Your task to perform on an android device: turn on data saver in the chrome app Image 0: 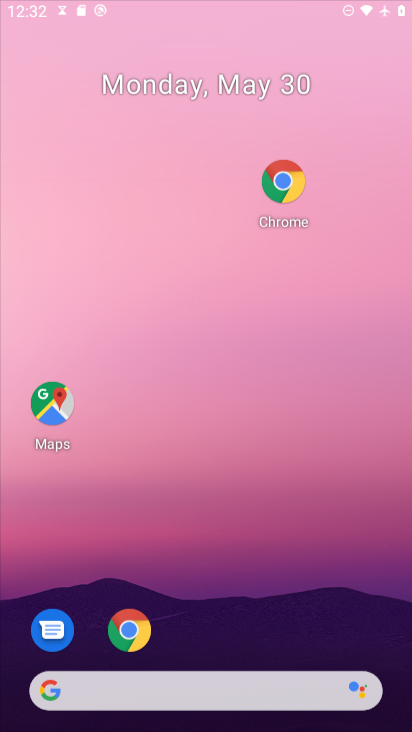
Step 0: drag from (292, 689) to (264, 295)
Your task to perform on an android device: turn on data saver in the chrome app Image 1: 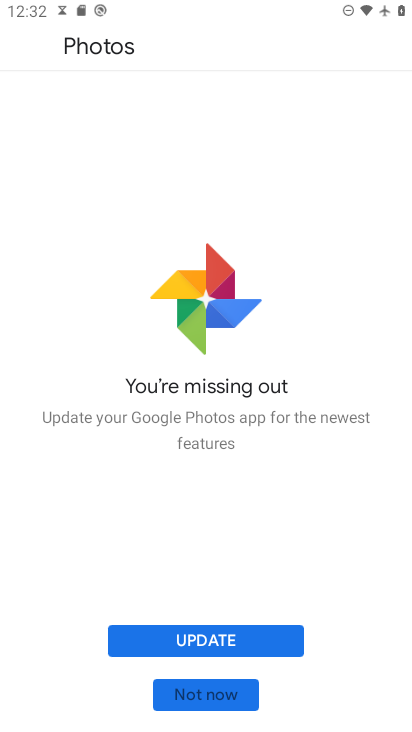
Step 1: click (211, 682)
Your task to perform on an android device: turn on data saver in the chrome app Image 2: 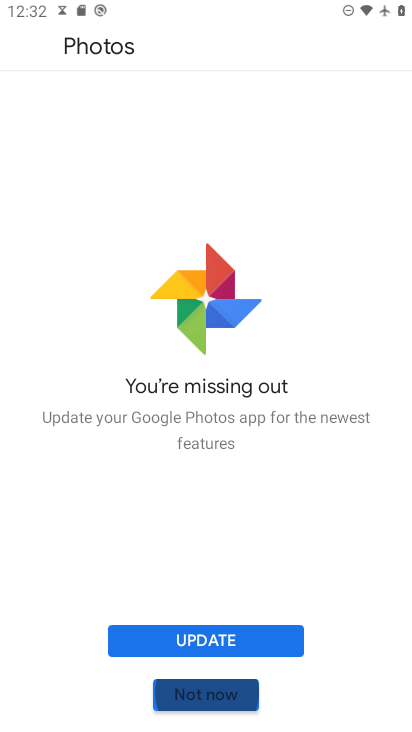
Step 2: click (205, 698)
Your task to perform on an android device: turn on data saver in the chrome app Image 3: 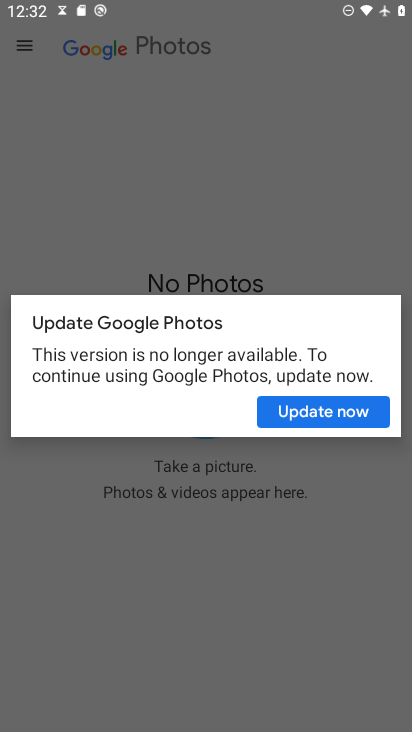
Step 3: press back button
Your task to perform on an android device: turn on data saver in the chrome app Image 4: 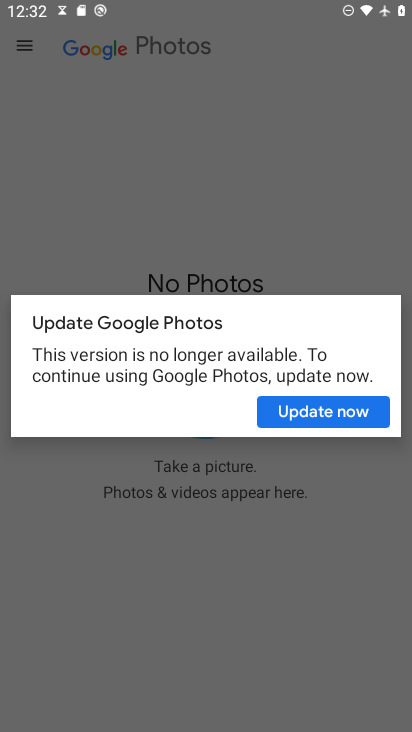
Step 4: press back button
Your task to perform on an android device: turn on data saver in the chrome app Image 5: 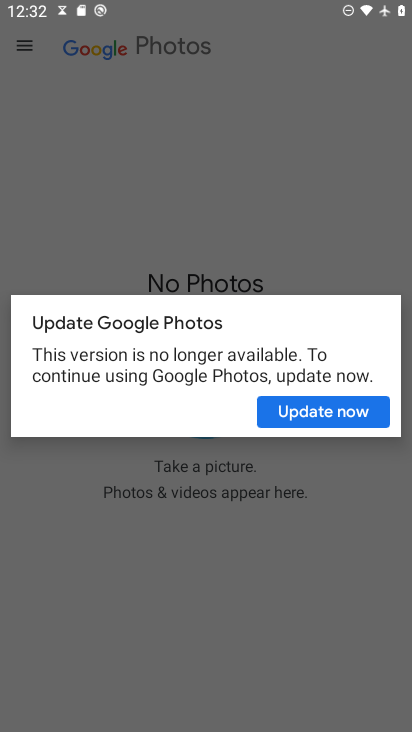
Step 5: press back button
Your task to perform on an android device: turn on data saver in the chrome app Image 6: 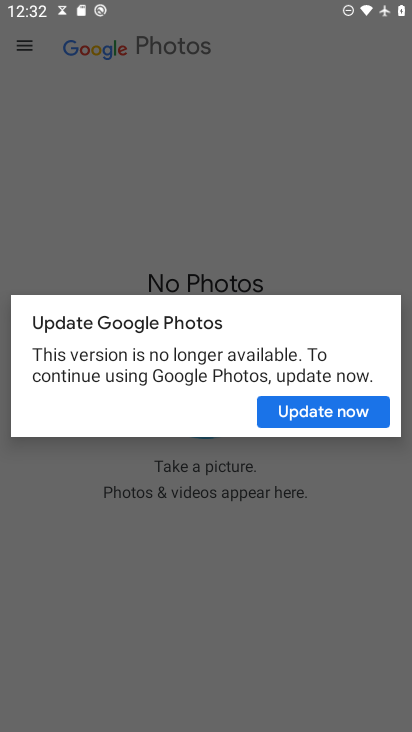
Step 6: press home button
Your task to perform on an android device: turn on data saver in the chrome app Image 7: 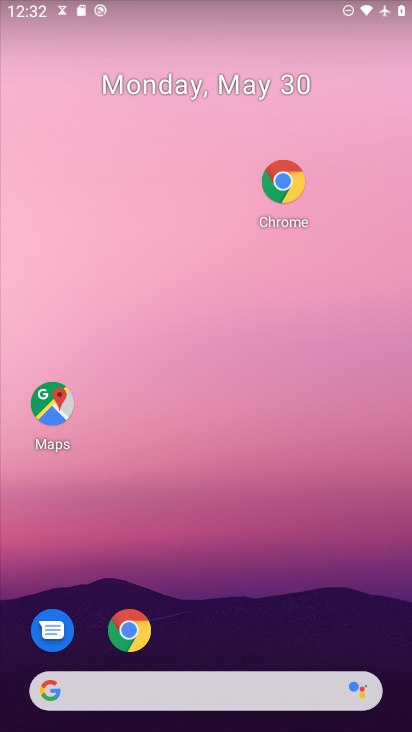
Step 7: drag from (259, 718) to (110, 108)
Your task to perform on an android device: turn on data saver in the chrome app Image 8: 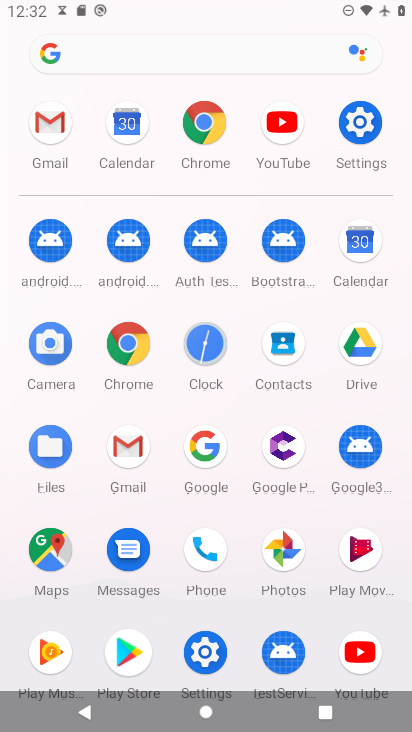
Step 8: click (193, 122)
Your task to perform on an android device: turn on data saver in the chrome app Image 9: 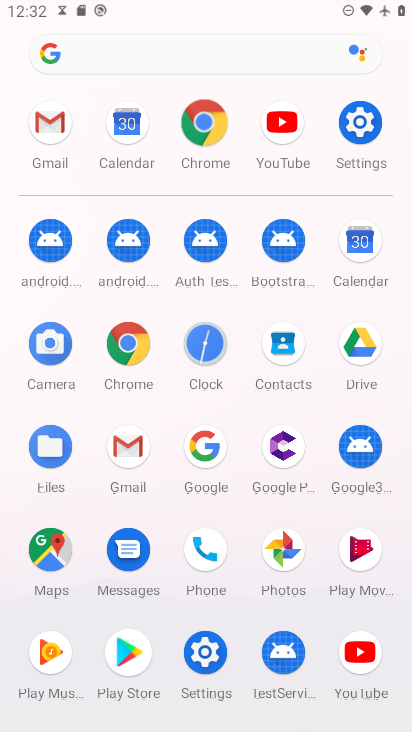
Step 9: click (202, 117)
Your task to perform on an android device: turn on data saver in the chrome app Image 10: 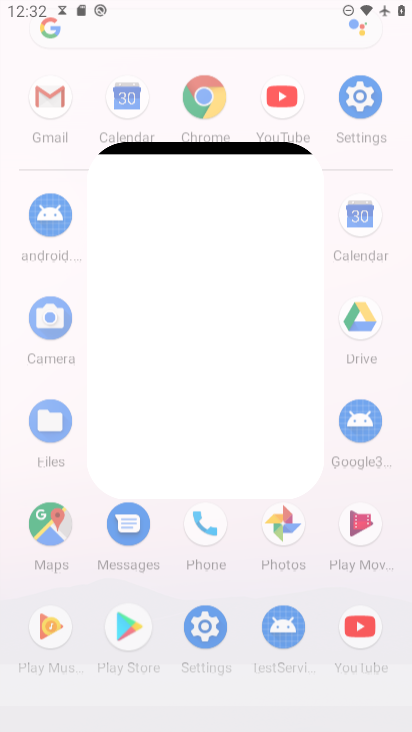
Step 10: click (206, 115)
Your task to perform on an android device: turn on data saver in the chrome app Image 11: 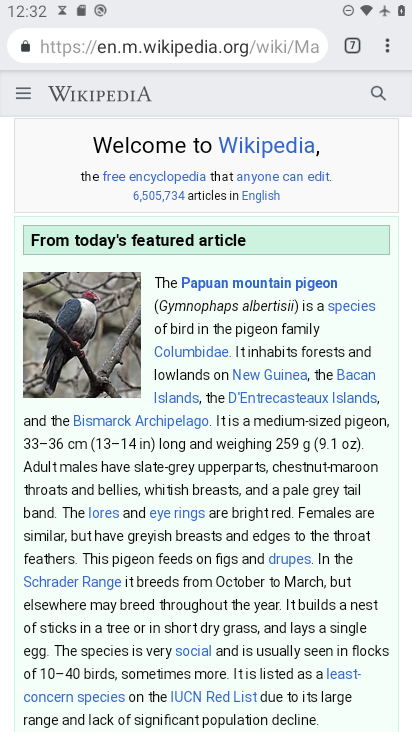
Step 11: click (386, 48)
Your task to perform on an android device: turn on data saver in the chrome app Image 12: 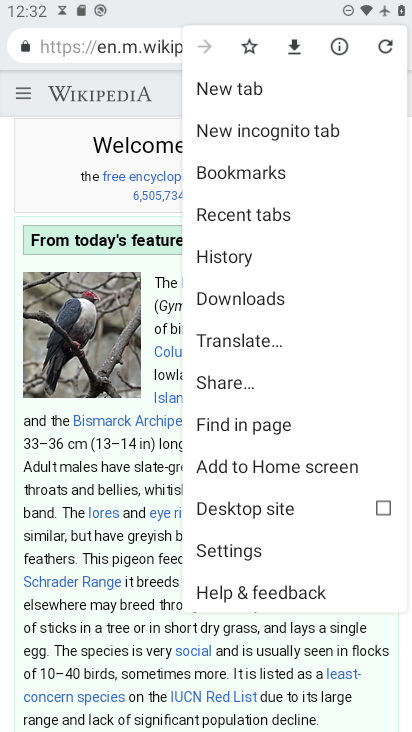
Step 12: click (228, 544)
Your task to perform on an android device: turn on data saver in the chrome app Image 13: 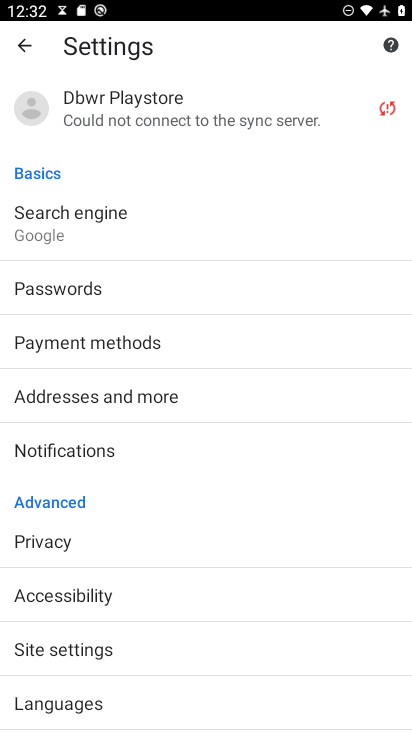
Step 13: drag from (52, 622) to (67, 312)
Your task to perform on an android device: turn on data saver in the chrome app Image 14: 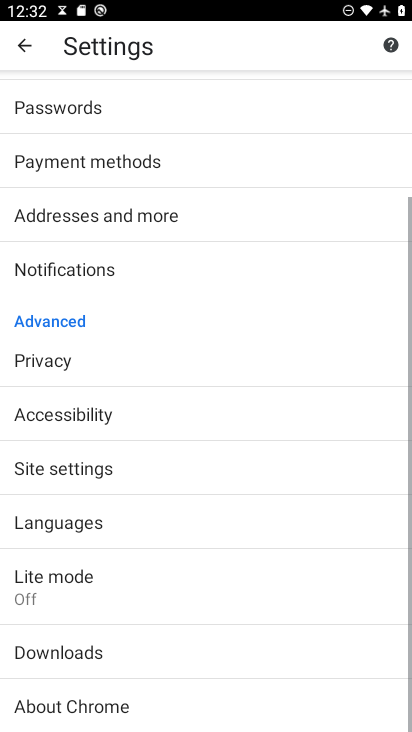
Step 14: drag from (91, 527) to (79, 255)
Your task to perform on an android device: turn on data saver in the chrome app Image 15: 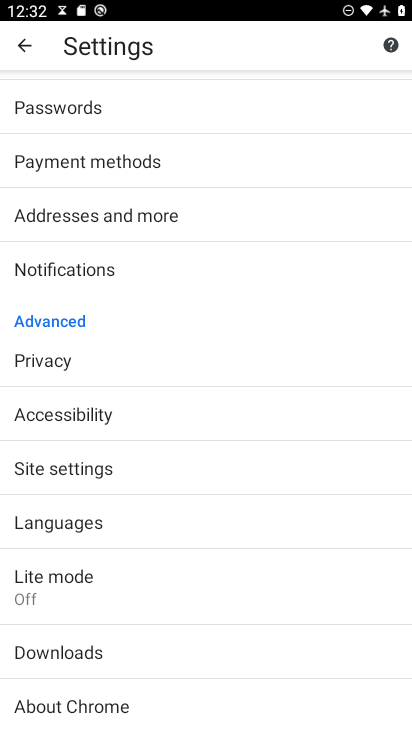
Step 15: click (46, 576)
Your task to perform on an android device: turn on data saver in the chrome app Image 16: 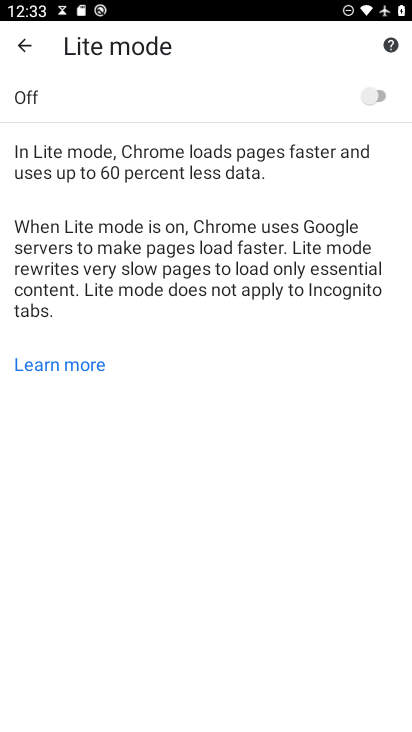
Step 16: click (373, 95)
Your task to perform on an android device: turn on data saver in the chrome app Image 17: 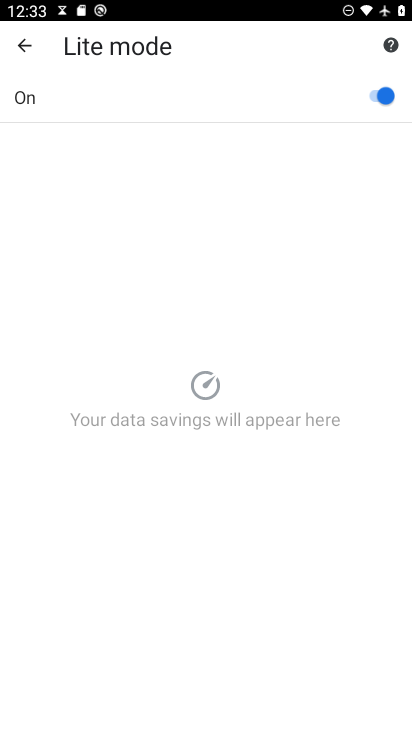
Step 17: task complete